Your task to perform on an android device: turn on the 24-hour format for clock Image 0: 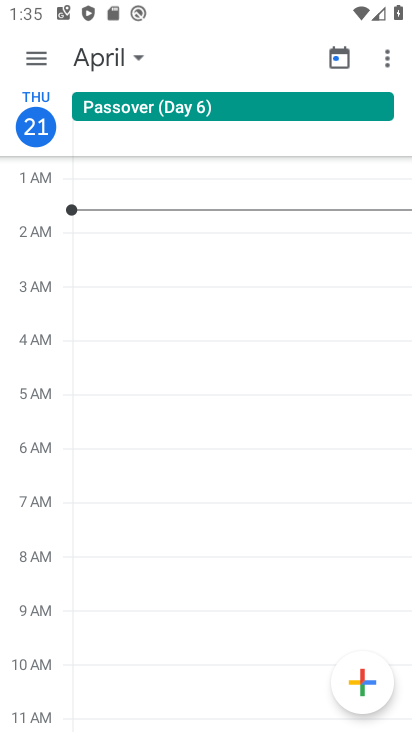
Step 0: press home button
Your task to perform on an android device: turn on the 24-hour format for clock Image 1: 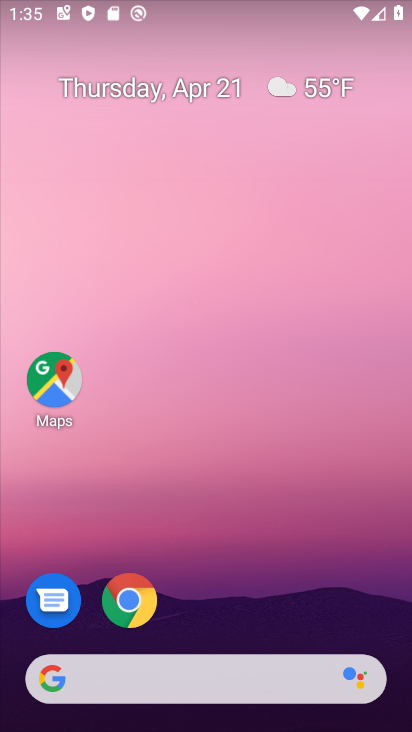
Step 1: drag from (254, 560) to (266, 205)
Your task to perform on an android device: turn on the 24-hour format for clock Image 2: 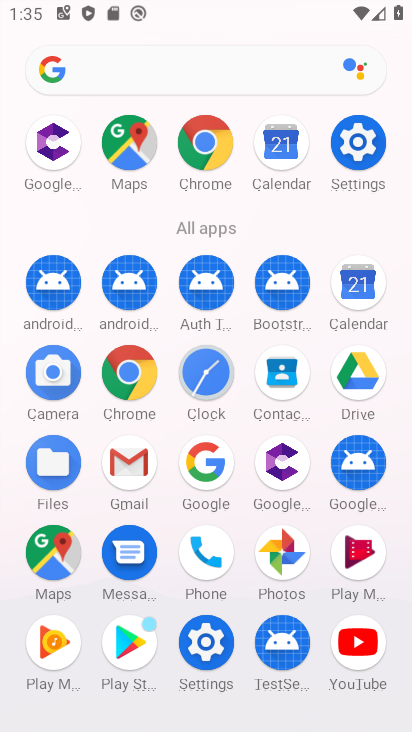
Step 2: click (213, 380)
Your task to perform on an android device: turn on the 24-hour format for clock Image 3: 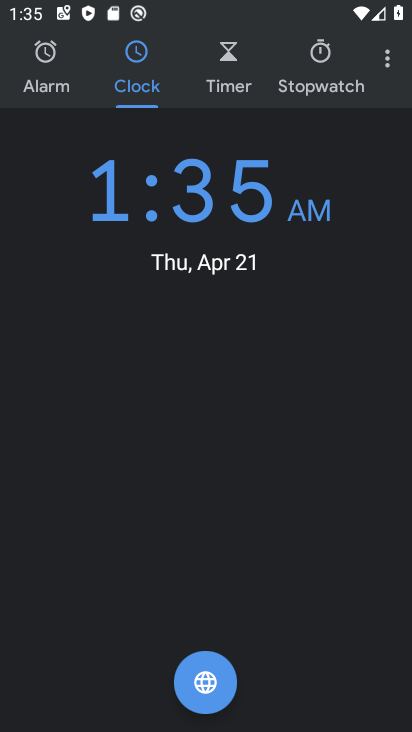
Step 3: click (377, 72)
Your task to perform on an android device: turn on the 24-hour format for clock Image 4: 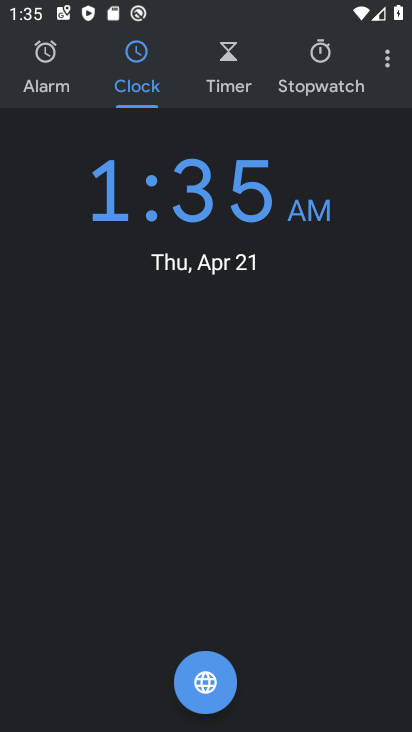
Step 4: click (378, 73)
Your task to perform on an android device: turn on the 24-hour format for clock Image 5: 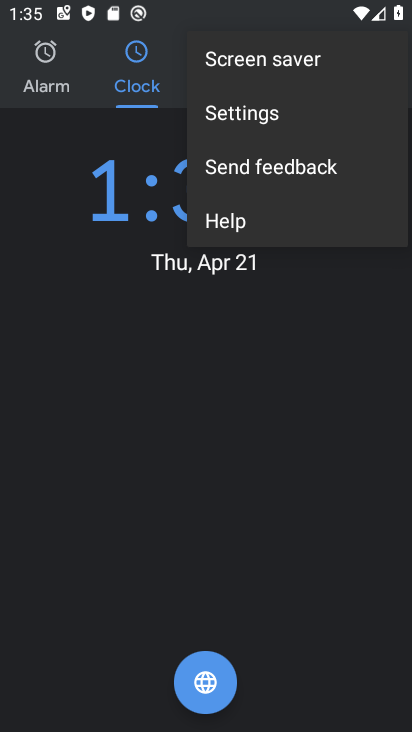
Step 5: click (322, 112)
Your task to perform on an android device: turn on the 24-hour format for clock Image 6: 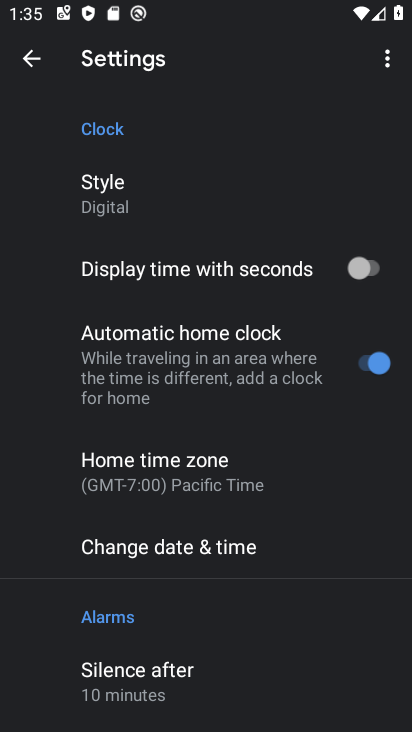
Step 6: drag from (216, 627) to (225, 532)
Your task to perform on an android device: turn on the 24-hour format for clock Image 7: 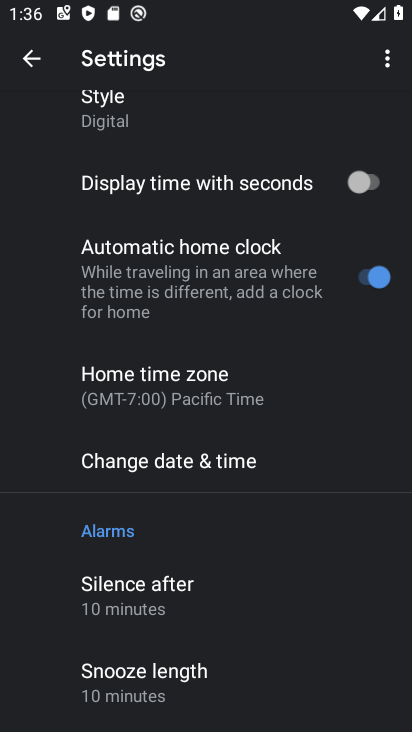
Step 7: click (200, 481)
Your task to perform on an android device: turn on the 24-hour format for clock Image 8: 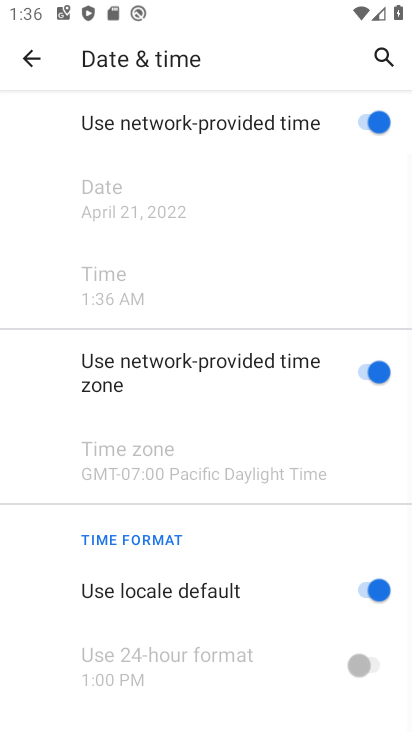
Step 8: drag from (262, 654) to (230, 231)
Your task to perform on an android device: turn on the 24-hour format for clock Image 9: 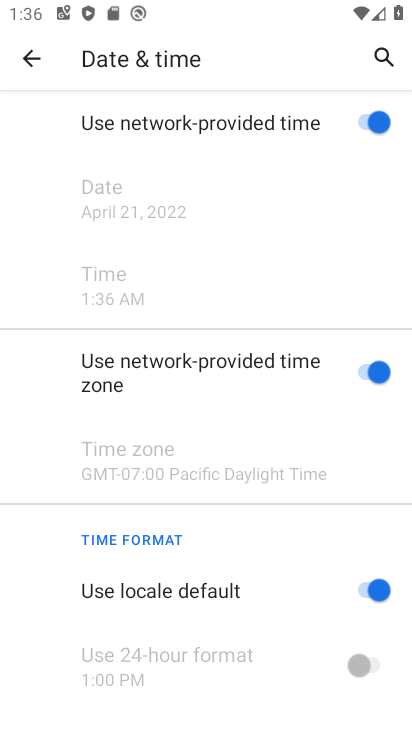
Step 9: click (381, 585)
Your task to perform on an android device: turn on the 24-hour format for clock Image 10: 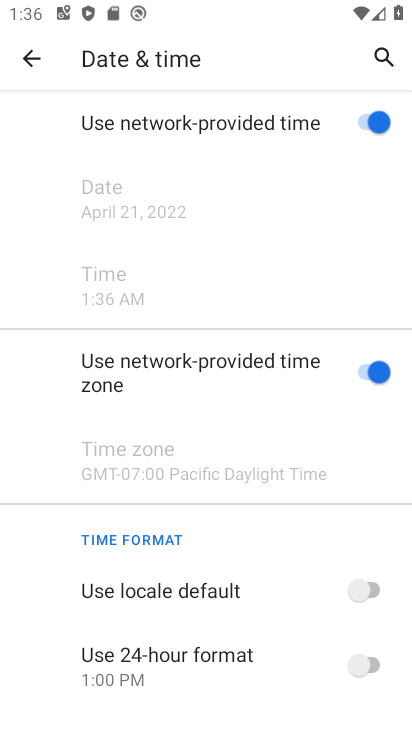
Step 10: click (378, 661)
Your task to perform on an android device: turn on the 24-hour format for clock Image 11: 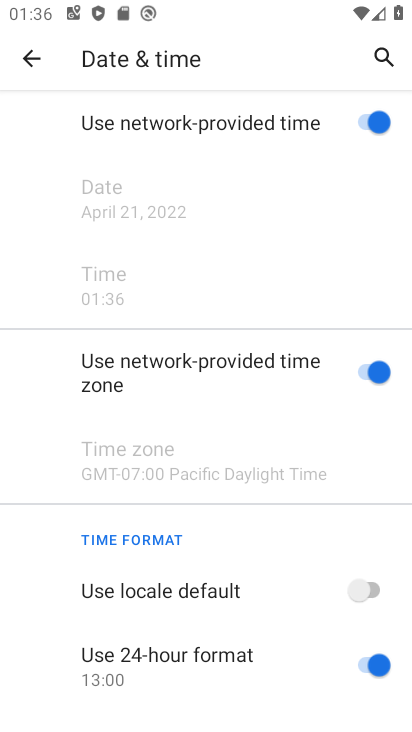
Step 11: task complete